Your task to perform on an android device: What is the news today? Image 0: 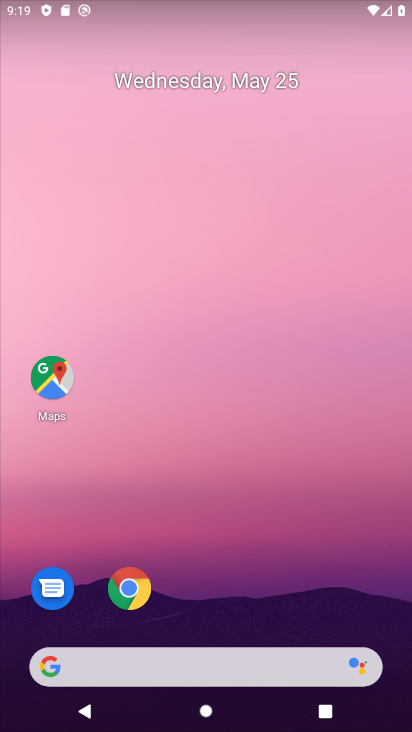
Step 0: click (205, 662)
Your task to perform on an android device: What is the news today? Image 1: 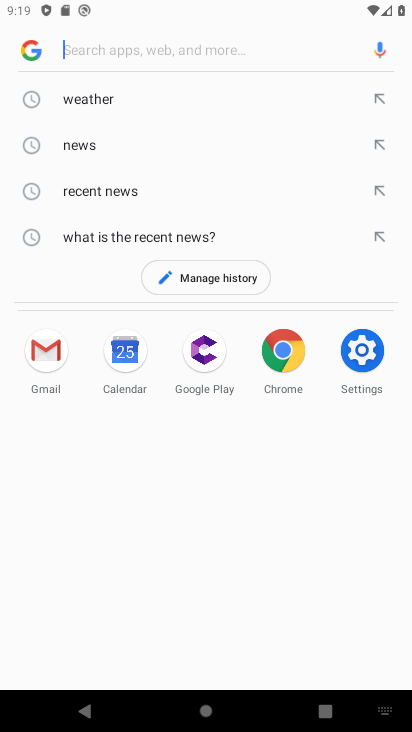
Step 1: type "what is the news today"
Your task to perform on an android device: What is the news today? Image 2: 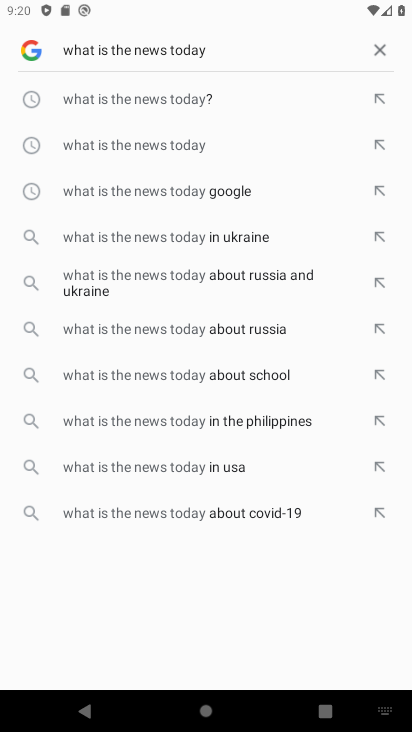
Step 2: click (167, 98)
Your task to perform on an android device: What is the news today? Image 3: 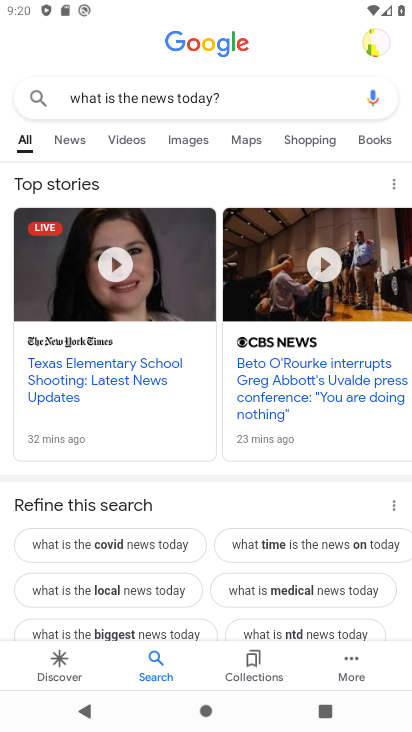
Step 3: click (71, 133)
Your task to perform on an android device: What is the news today? Image 4: 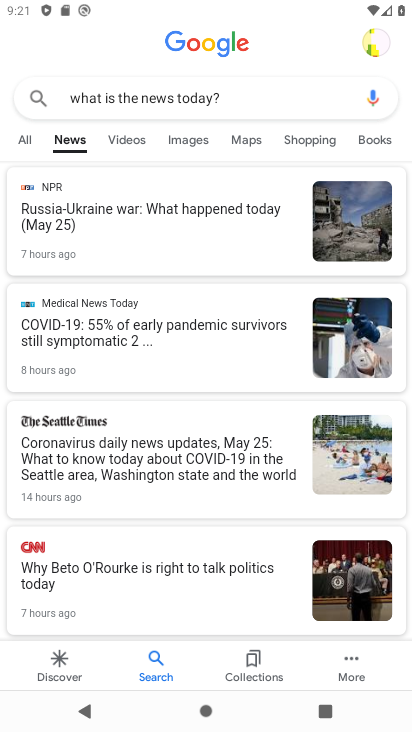
Step 4: task complete